Your task to perform on an android device: Check the news Image 0: 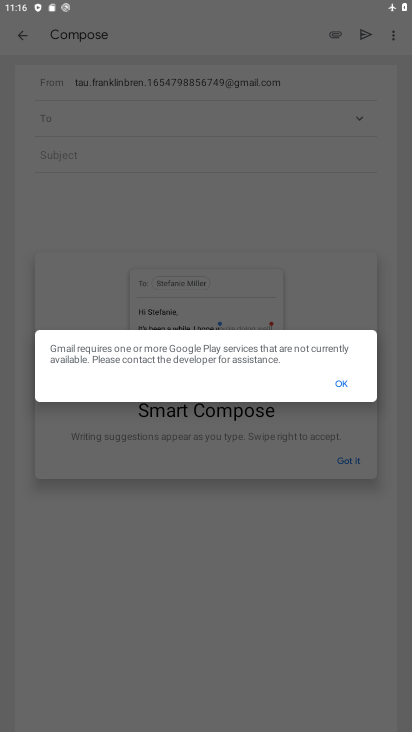
Step 0: press home button
Your task to perform on an android device: Check the news Image 1: 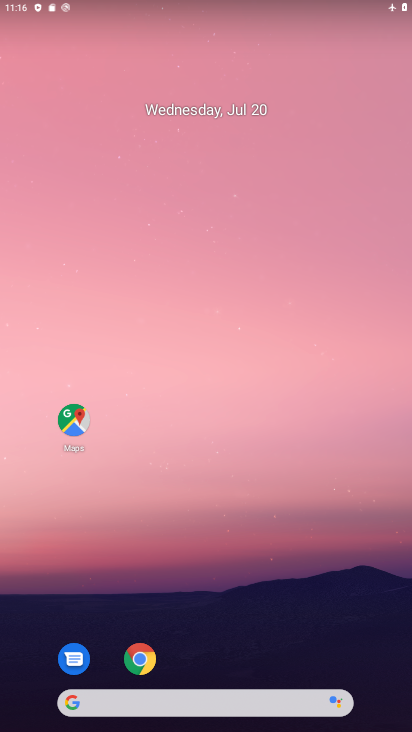
Step 1: click (226, 703)
Your task to perform on an android device: Check the news Image 2: 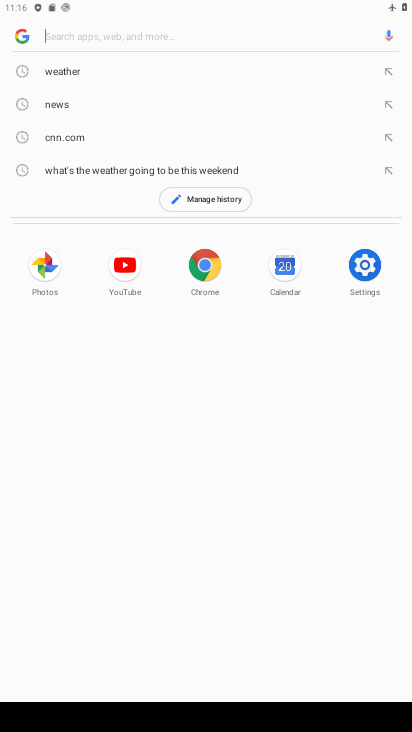
Step 2: click (51, 107)
Your task to perform on an android device: Check the news Image 3: 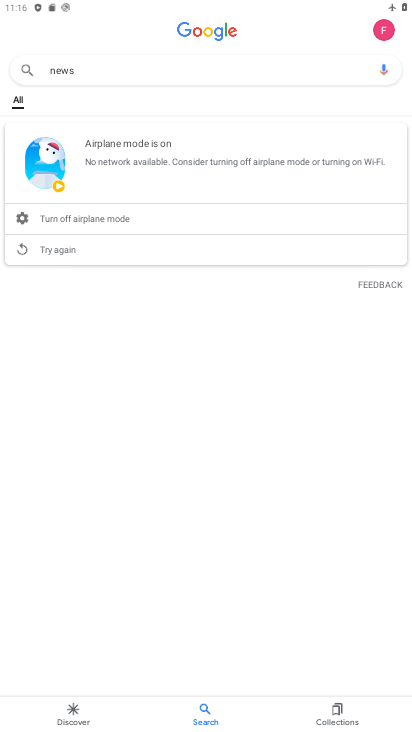
Step 3: task complete